Your task to perform on an android device: Open calendar and show me the third week of next month Image 0: 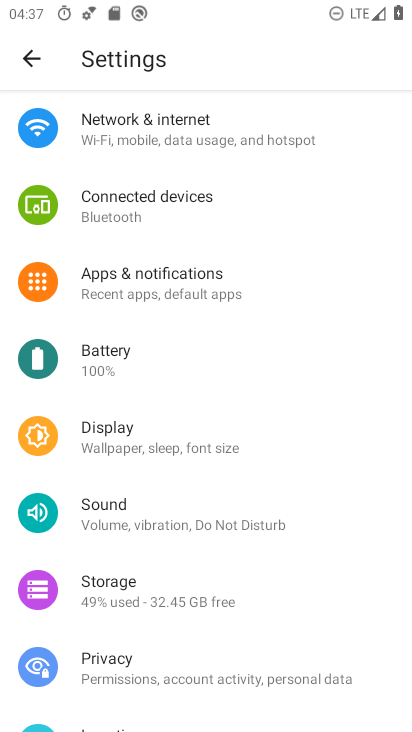
Step 0: press home button
Your task to perform on an android device: Open calendar and show me the third week of next month Image 1: 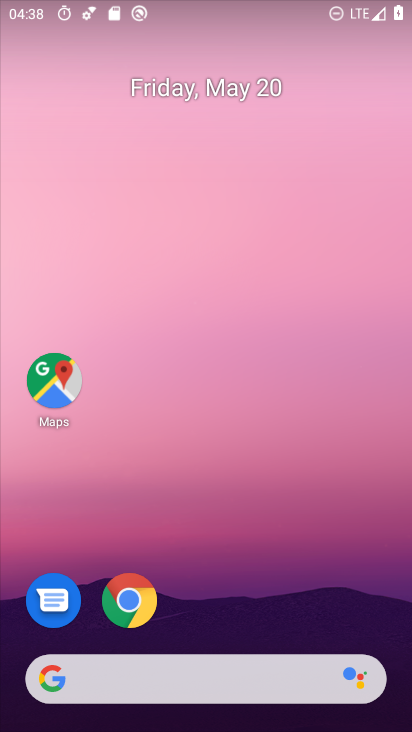
Step 1: drag from (212, 619) to (295, 3)
Your task to perform on an android device: Open calendar and show me the third week of next month Image 2: 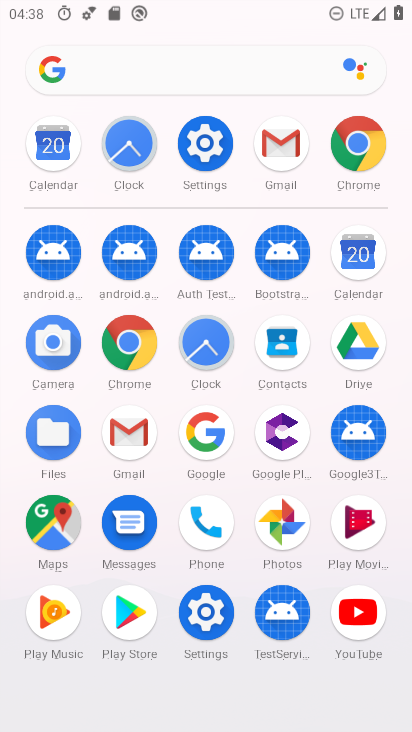
Step 2: click (50, 141)
Your task to perform on an android device: Open calendar and show me the third week of next month Image 3: 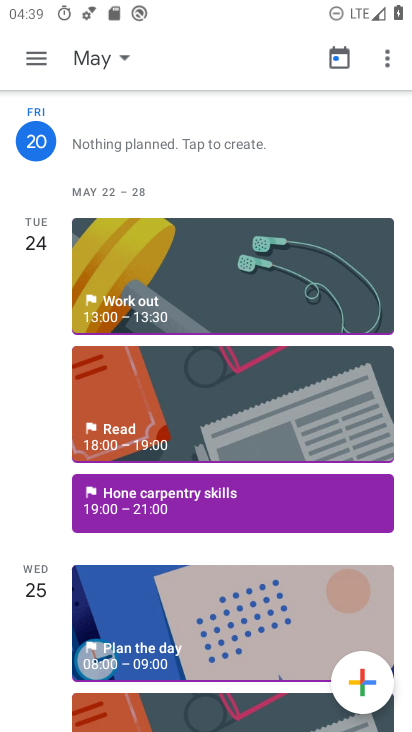
Step 3: click (132, 56)
Your task to perform on an android device: Open calendar and show me the third week of next month Image 4: 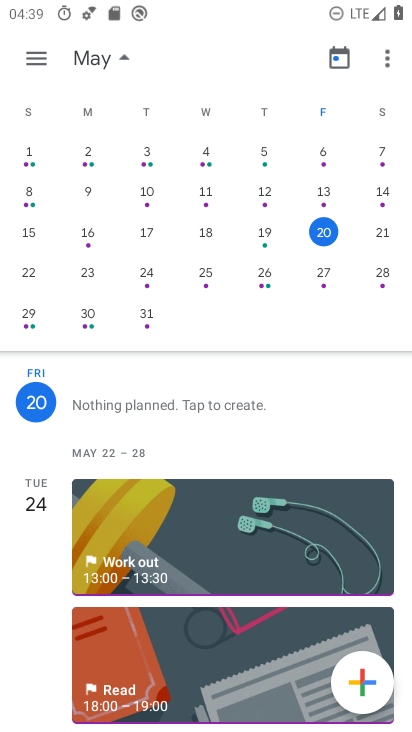
Step 4: drag from (367, 177) to (7, 204)
Your task to perform on an android device: Open calendar and show me the third week of next month Image 5: 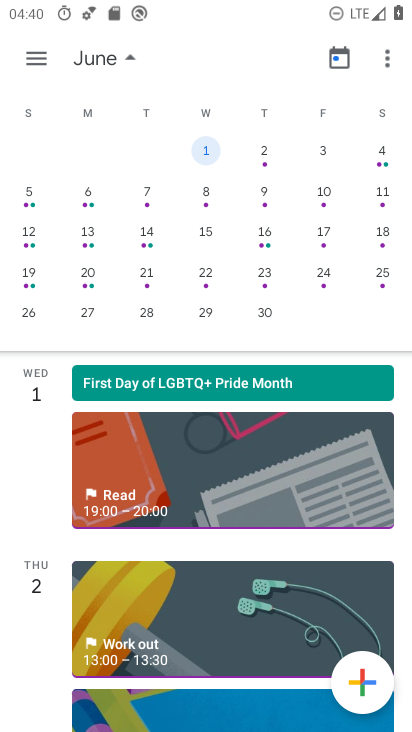
Step 5: click (88, 225)
Your task to perform on an android device: Open calendar and show me the third week of next month Image 6: 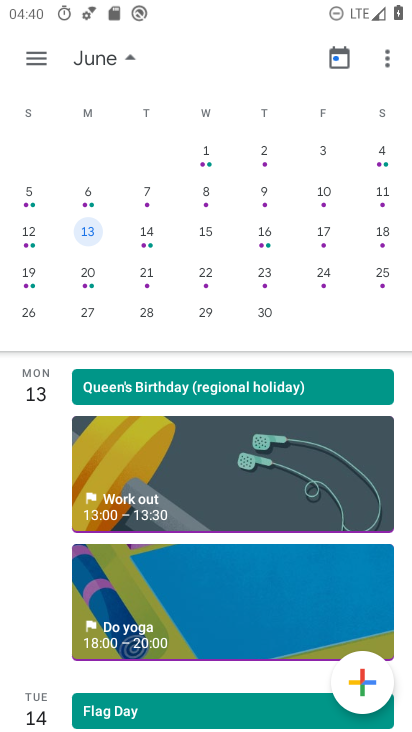
Step 6: task complete